Your task to perform on an android device: Go to ESPN.com Image 0: 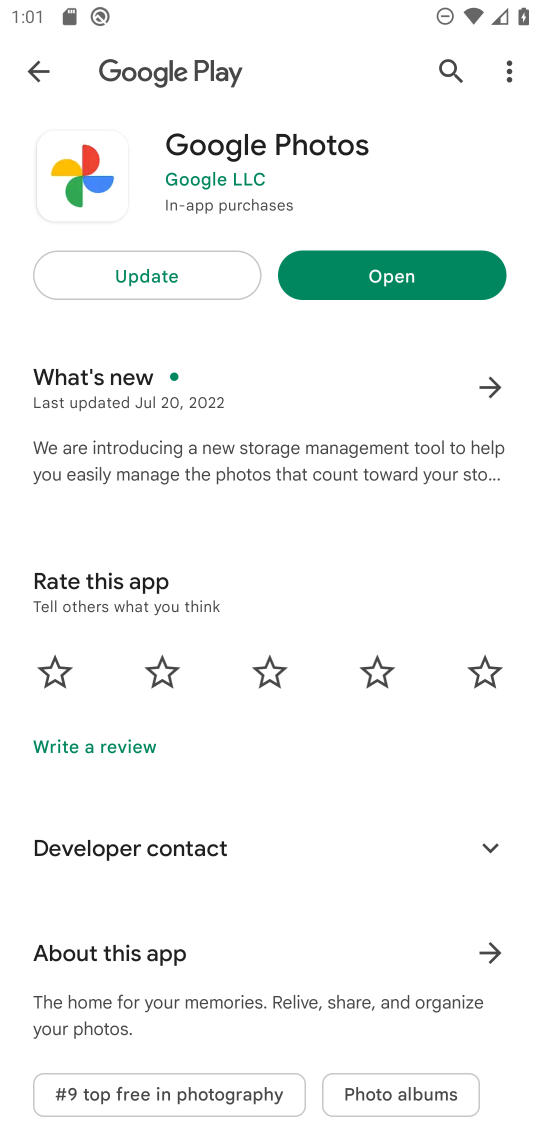
Step 0: press home button
Your task to perform on an android device: Go to ESPN.com Image 1: 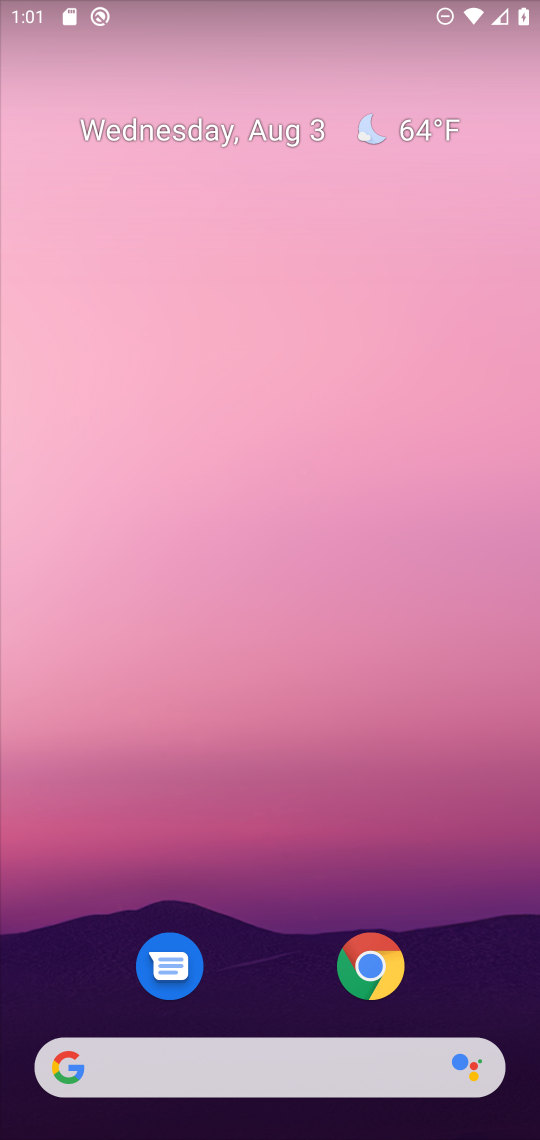
Step 1: click (352, 965)
Your task to perform on an android device: Go to ESPN.com Image 2: 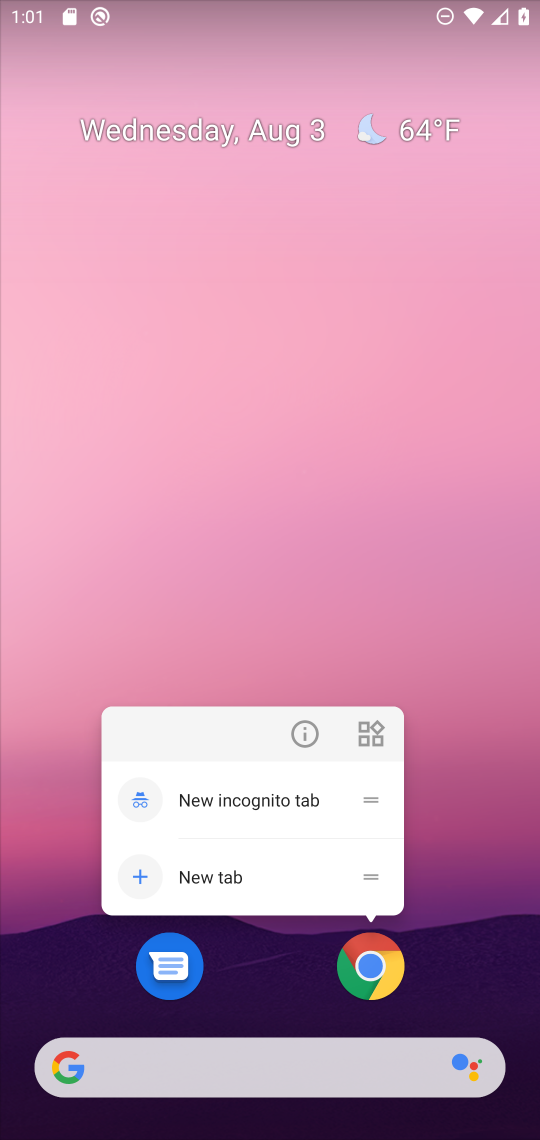
Step 2: click (345, 952)
Your task to perform on an android device: Go to ESPN.com Image 3: 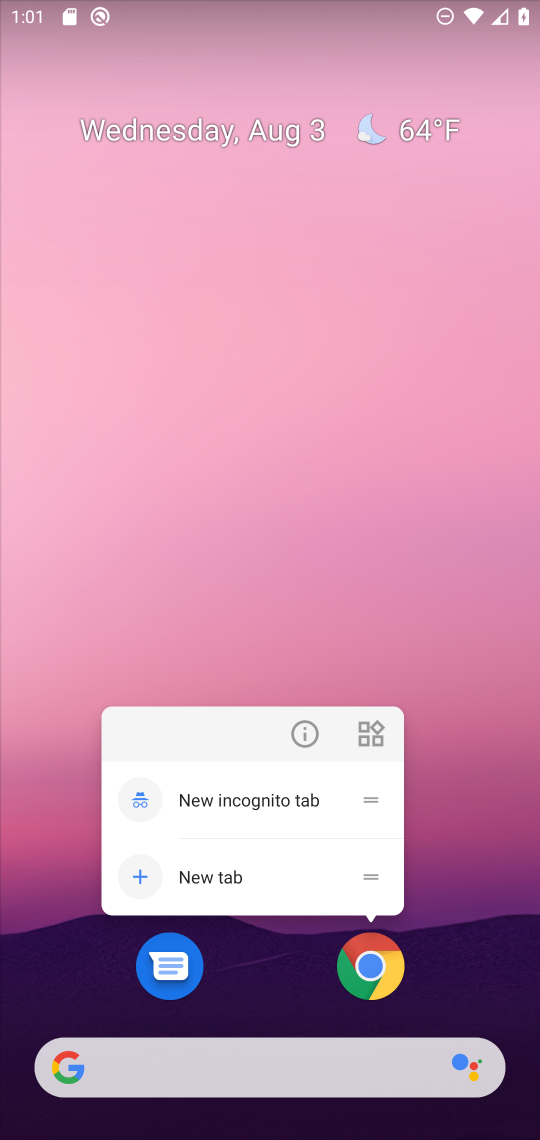
Step 3: click (345, 952)
Your task to perform on an android device: Go to ESPN.com Image 4: 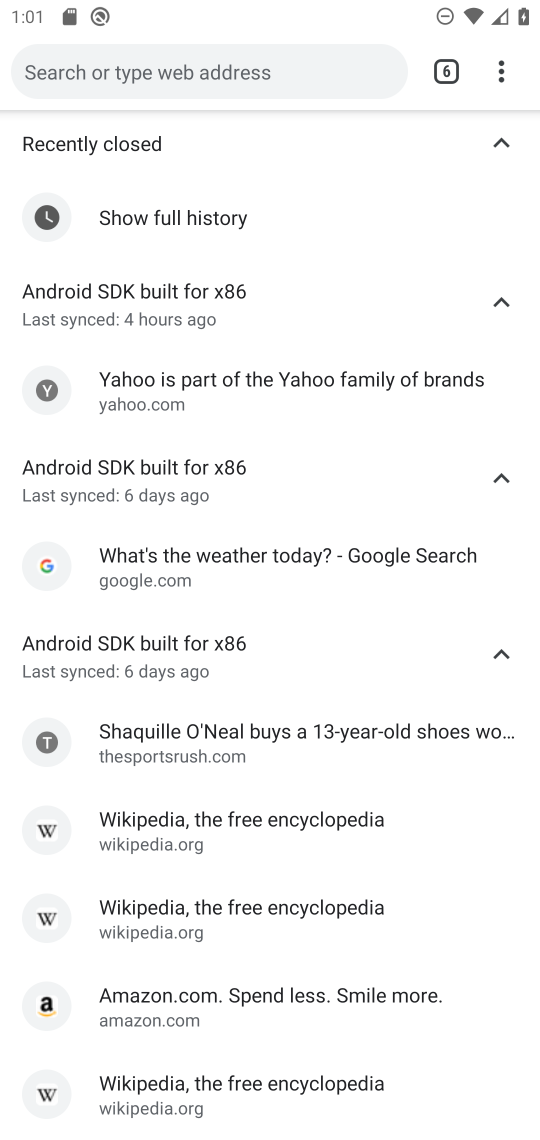
Step 4: click (452, 70)
Your task to perform on an android device: Go to ESPN.com Image 5: 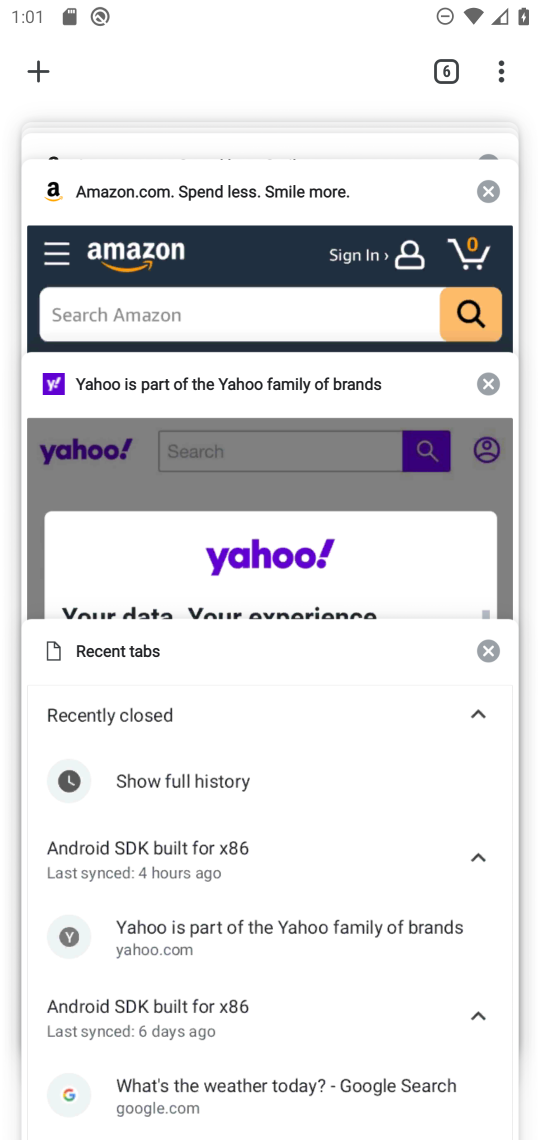
Step 5: click (44, 68)
Your task to perform on an android device: Go to ESPN.com Image 6: 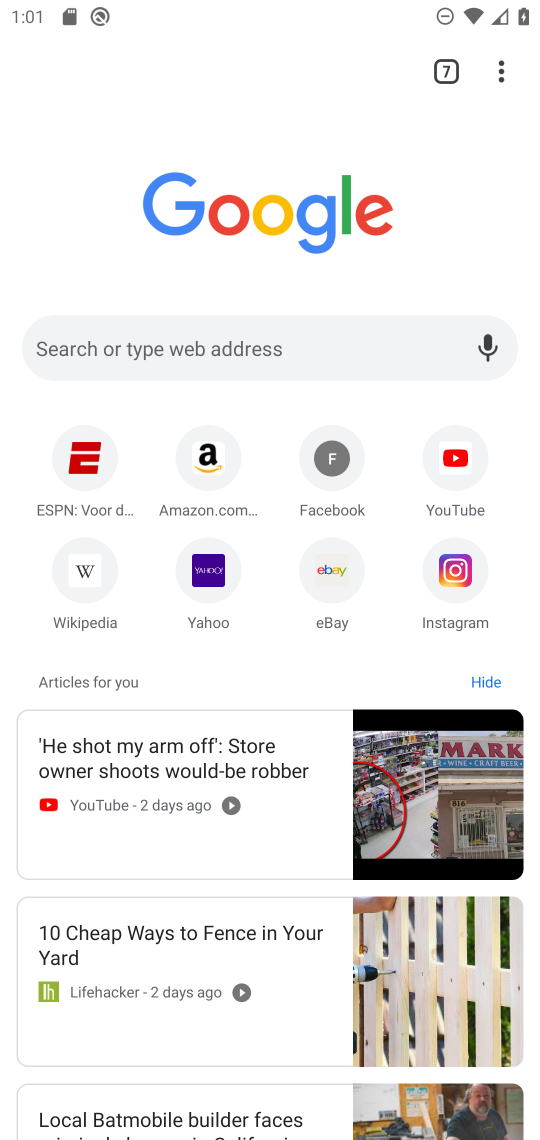
Step 6: click (246, 327)
Your task to perform on an android device: Go to ESPN.com Image 7: 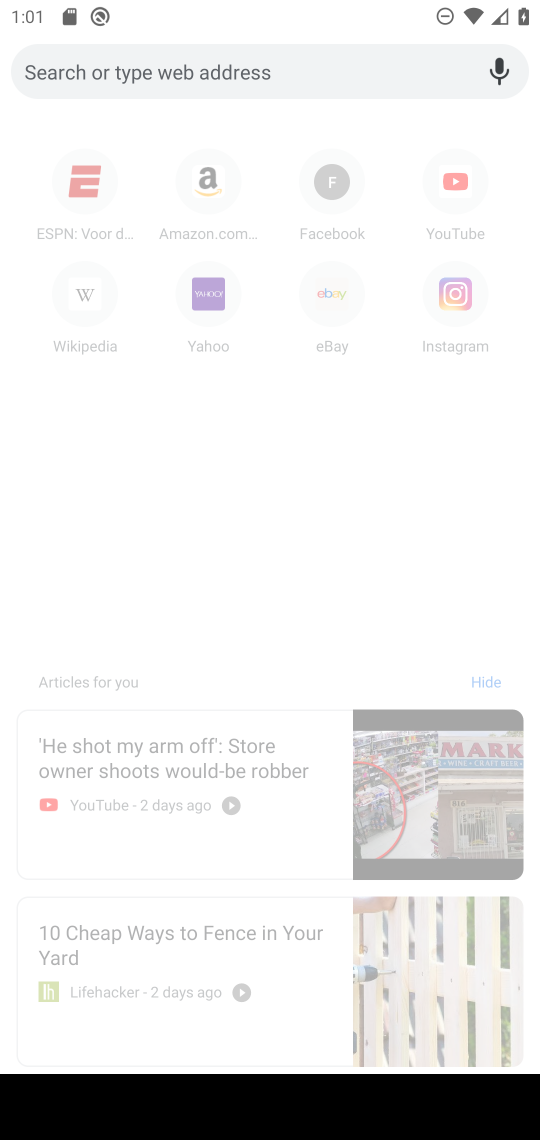
Step 7: type "ESPN.com"
Your task to perform on an android device: Go to ESPN.com Image 8: 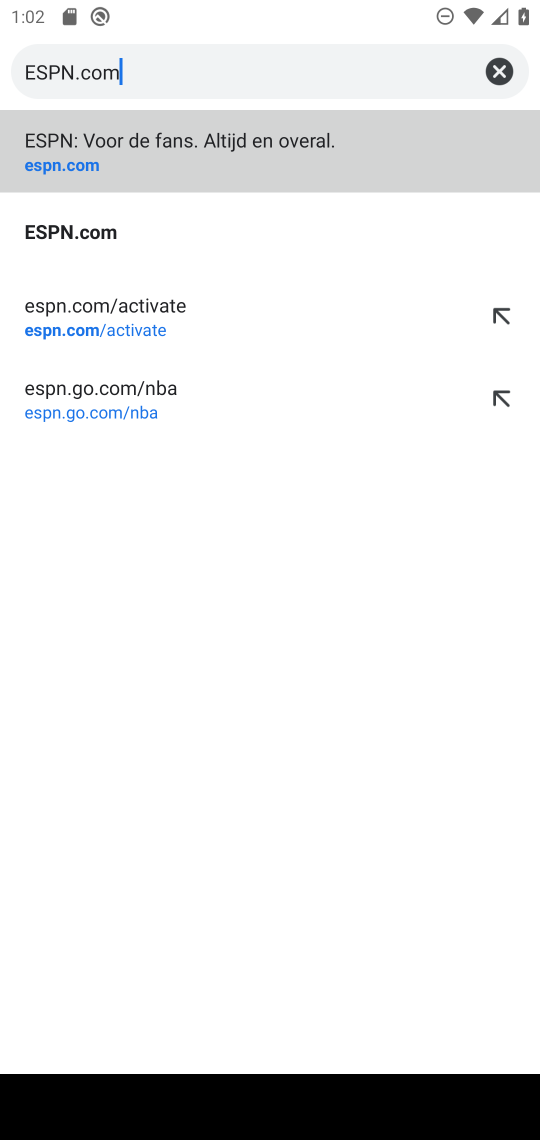
Step 8: click (193, 151)
Your task to perform on an android device: Go to ESPN.com Image 9: 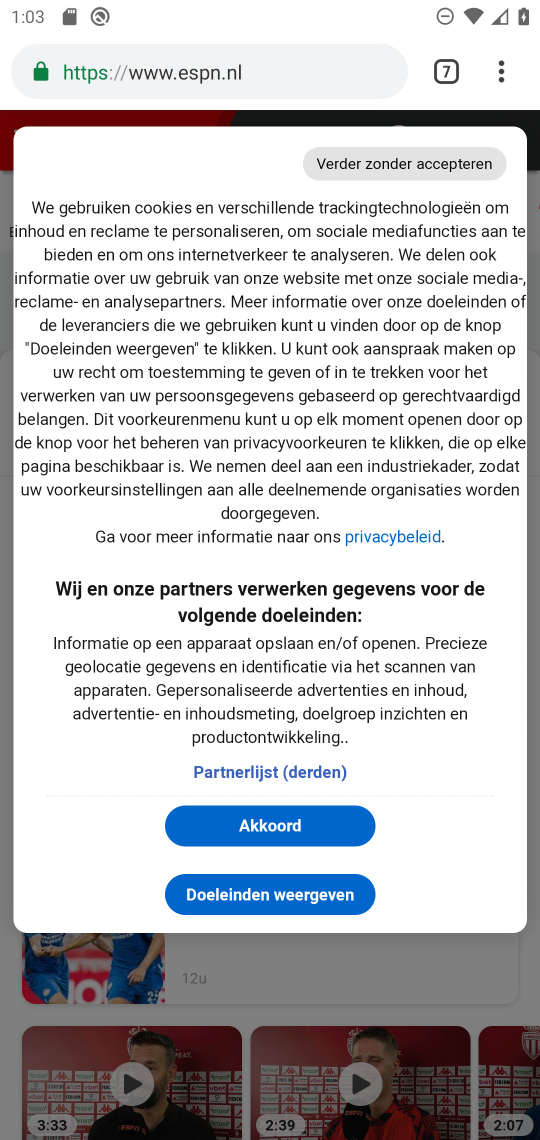
Step 9: task complete